Your task to perform on an android device: set default search engine in the chrome app Image 0: 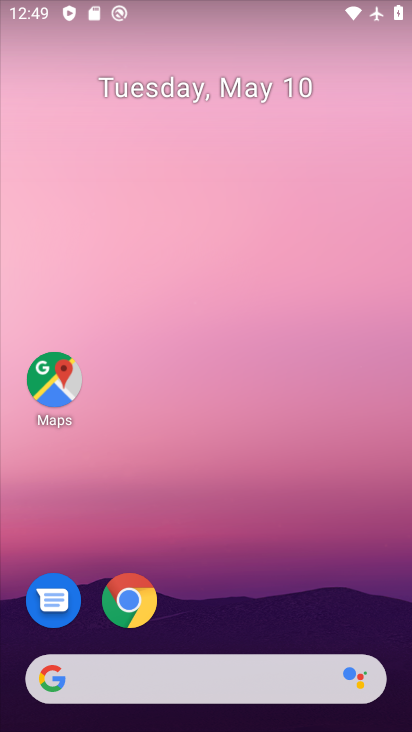
Step 0: drag from (244, 586) to (213, 74)
Your task to perform on an android device: set default search engine in the chrome app Image 1: 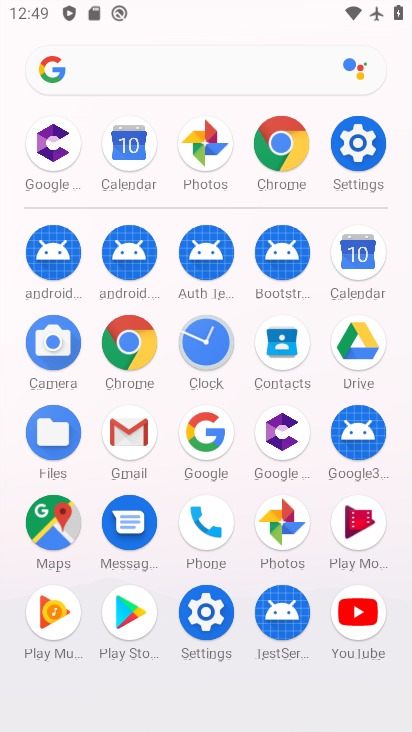
Step 1: click (272, 181)
Your task to perform on an android device: set default search engine in the chrome app Image 2: 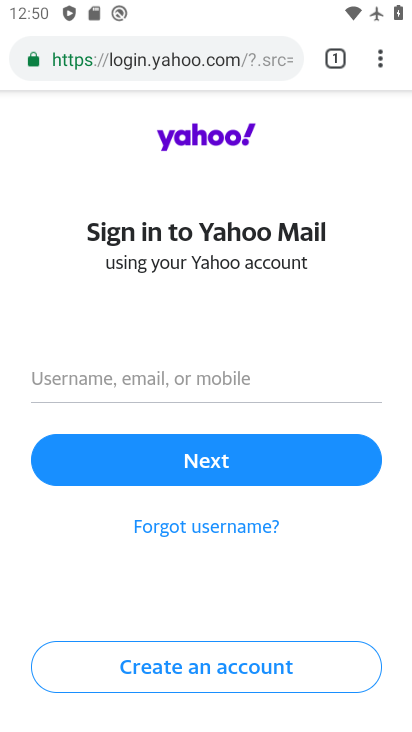
Step 2: press home button
Your task to perform on an android device: set default search engine in the chrome app Image 3: 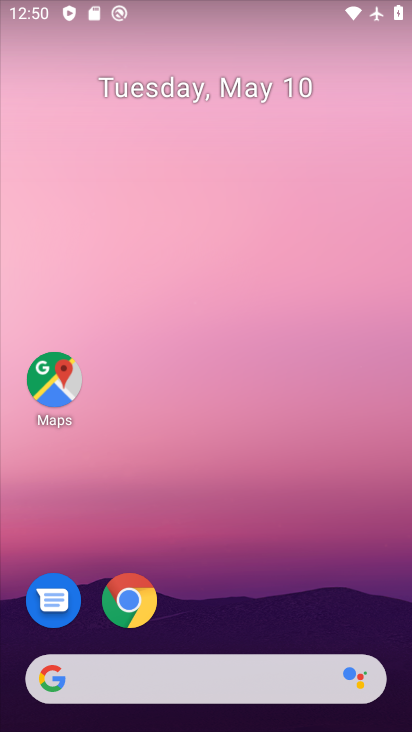
Step 3: drag from (267, 619) to (267, 241)
Your task to perform on an android device: set default search engine in the chrome app Image 4: 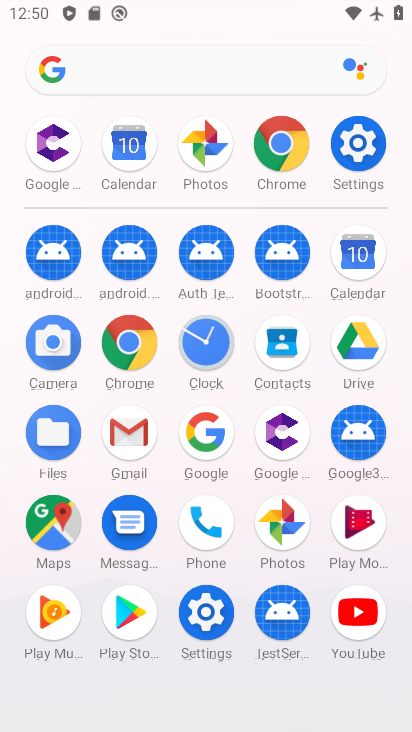
Step 4: click (270, 174)
Your task to perform on an android device: set default search engine in the chrome app Image 5: 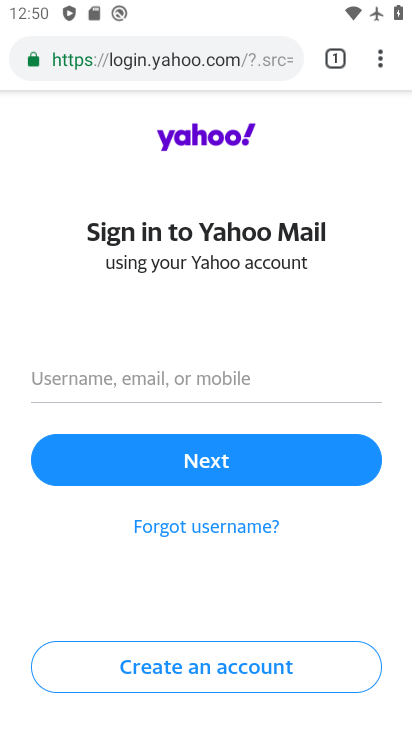
Step 5: click (394, 59)
Your task to perform on an android device: set default search engine in the chrome app Image 6: 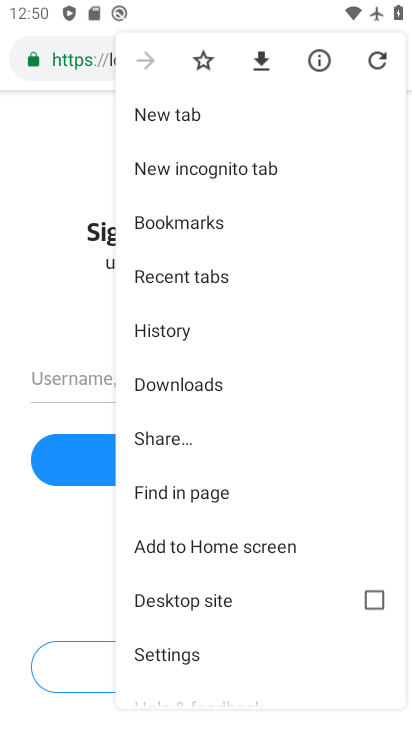
Step 6: click (176, 656)
Your task to perform on an android device: set default search engine in the chrome app Image 7: 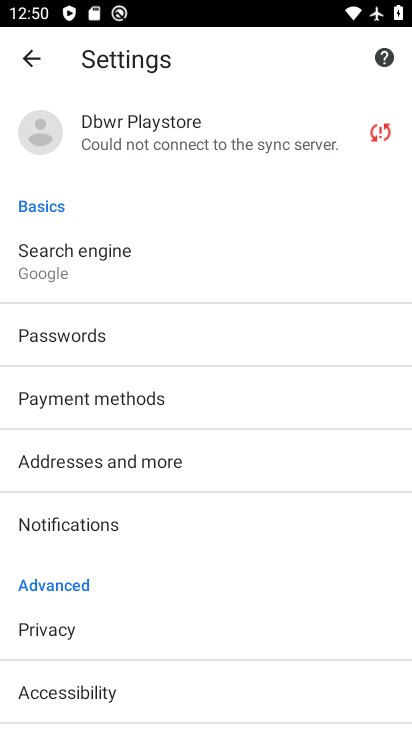
Step 7: click (77, 275)
Your task to perform on an android device: set default search engine in the chrome app Image 8: 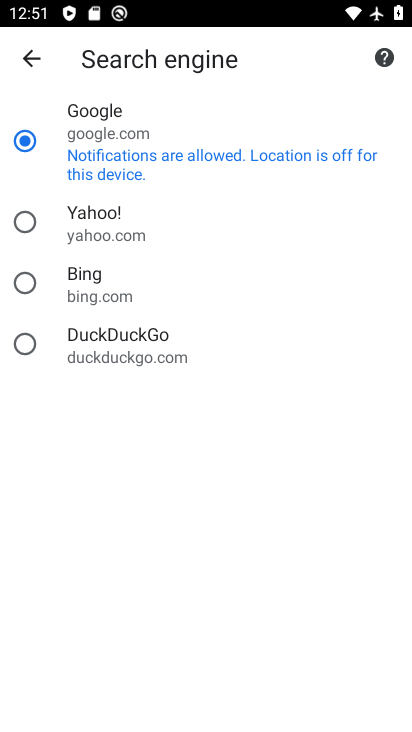
Step 8: task complete